Your task to perform on an android device: stop showing notifications on the lock screen Image 0: 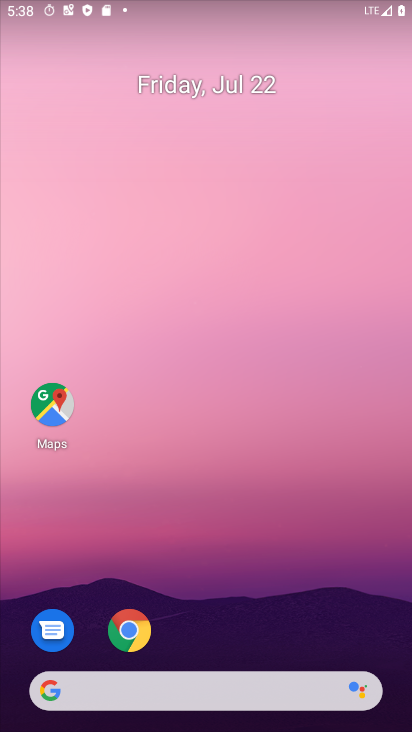
Step 0: drag from (253, 655) to (231, 11)
Your task to perform on an android device: stop showing notifications on the lock screen Image 1: 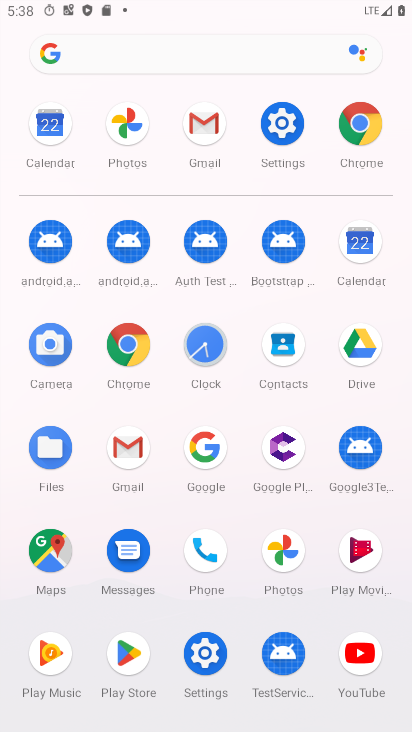
Step 1: click (294, 118)
Your task to perform on an android device: stop showing notifications on the lock screen Image 2: 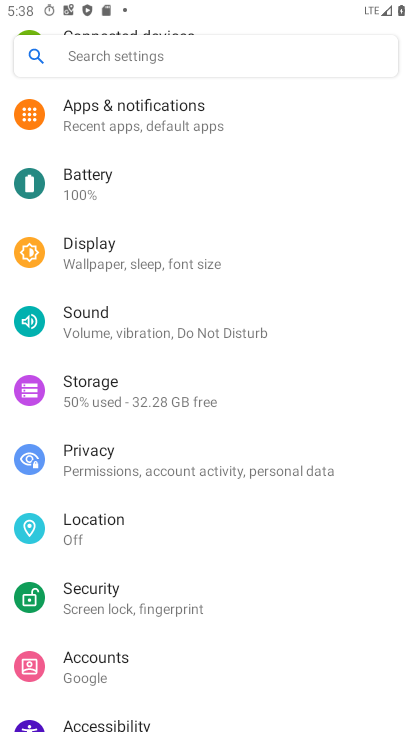
Step 2: click (166, 113)
Your task to perform on an android device: stop showing notifications on the lock screen Image 3: 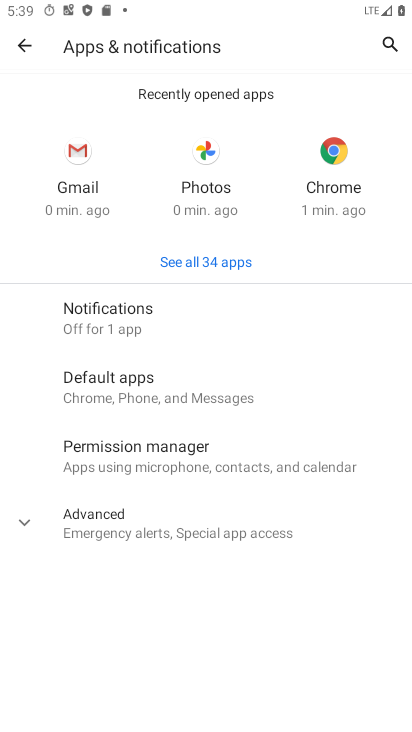
Step 3: click (118, 319)
Your task to perform on an android device: stop showing notifications on the lock screen Image 4: 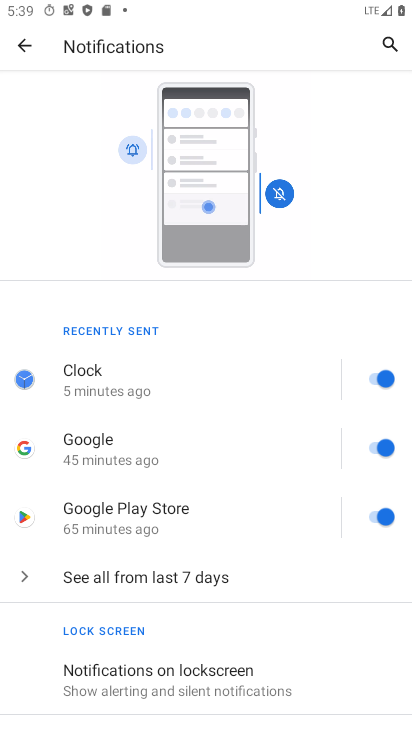
Step 4: click (138, 673)
Your task to perform on an android device: stop showing notifications on the lock screen Image 5: 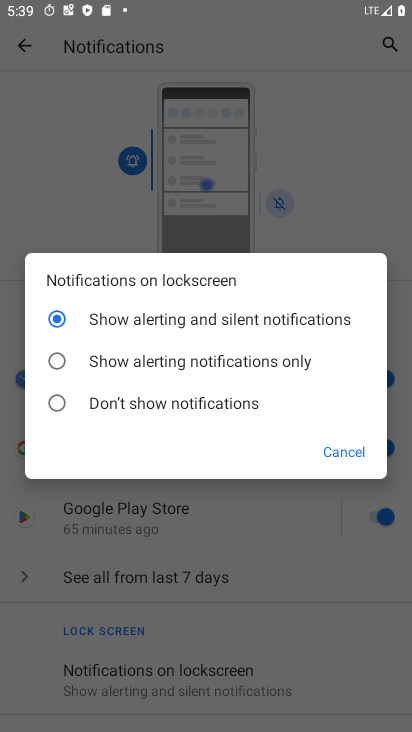
Step 5: click (62, 399)
Your task to perform on an android device: stop showing notifications on the lock screen Image 6: 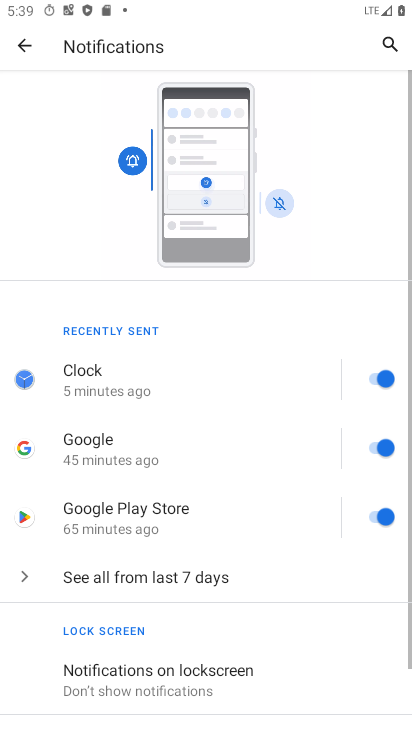
Step 6: task complete